Your task to perform on an android device: change text size in settings app Image 0: 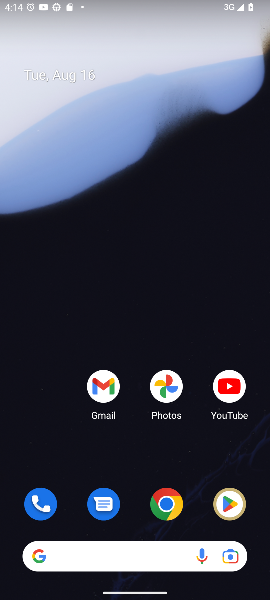
Step 0: drag from (135, 478) to (130, 143)
Your task to perform on an android device: change text size in settings app Image 1: 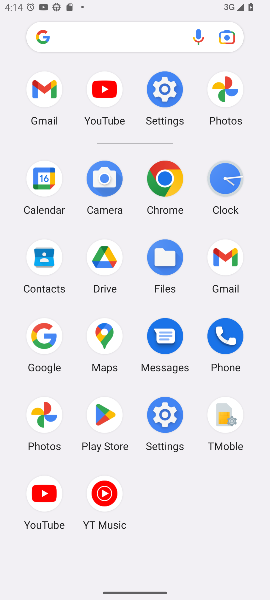
Step 1: click (164, 89)
Your task to perform on an android device: change text size in settings app Image 2: 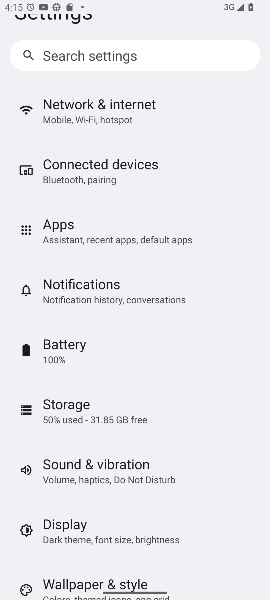
Step 2: click (65, 521)
Your task to perform on an android device: change text size in settings app Image 3: 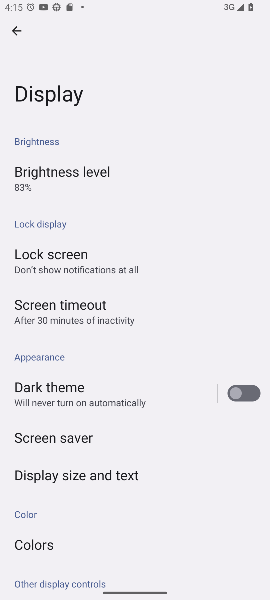
Step 3: drag from (128, 508) to (131, 400)
Your task to perform on an android device: change text size in settings app Image 4: 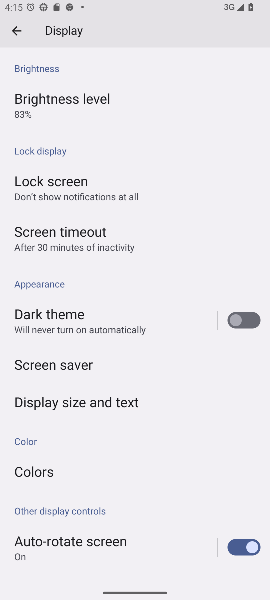
Step 4: click (80, 399)
Your task to perform on an android device: change text size in settings app Image 5: 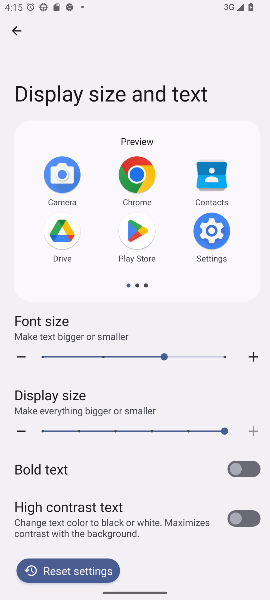
Step 5: click (194, 353)
Your task to perform on an android device: change text size in settings app Image 6: 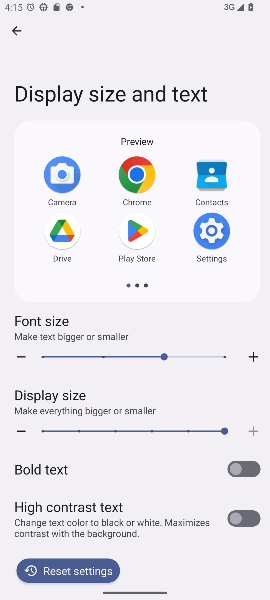
Step 6: click (224, 354)
Your task to perform on an android device: change text size in settings app Image 7: 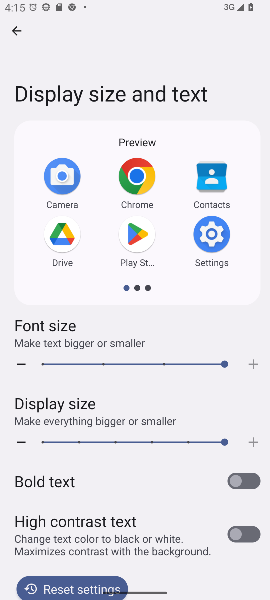
Step 7: task complete